Your task to perform on an android device: Open the web browser Image 0: 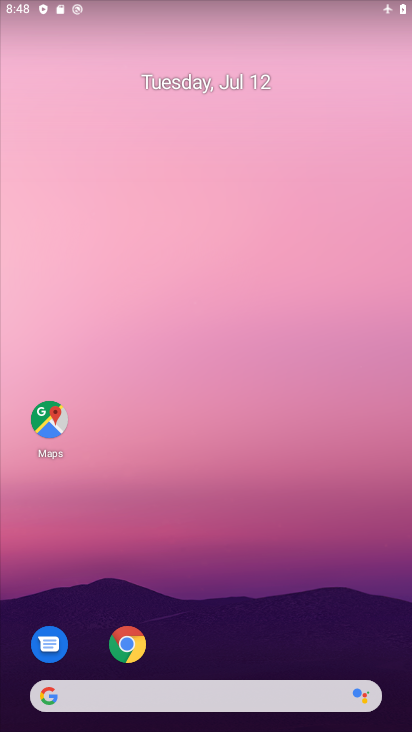
Step 0: click (145, 660)
Your task to perform on an android device: Open the web browser Image 1: 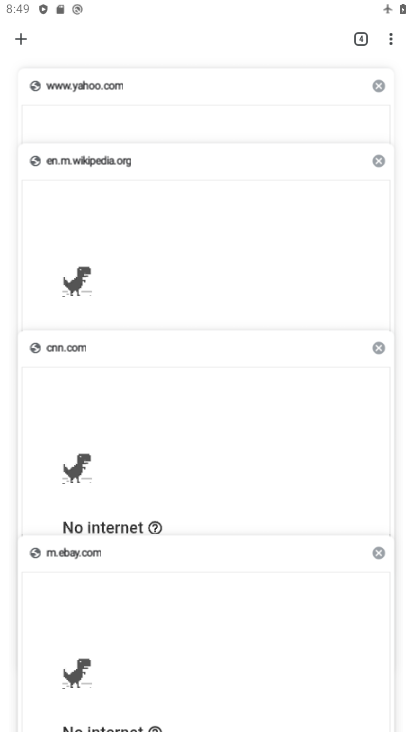
Step 1: task complete